Your task to perform on an android device: Go to sound settings Image 0: 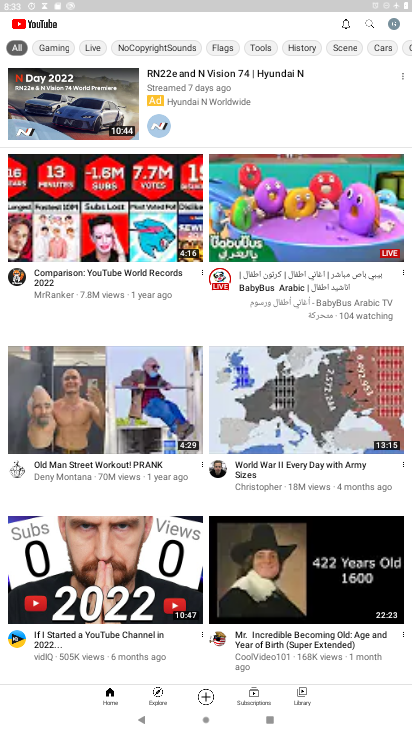
Step 0: press home button
Your task to perform on an android device: Go to sound settings Image 1: 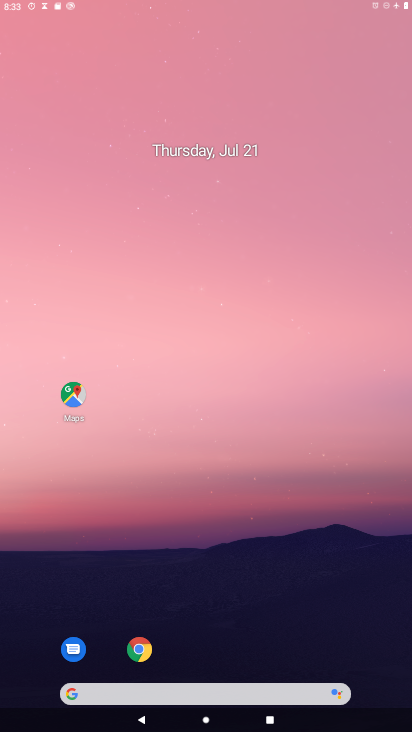
Step 1: drag from (389, 685) to (188, 52)
Your task to perform on an android device: Go to sound settings Image 2: 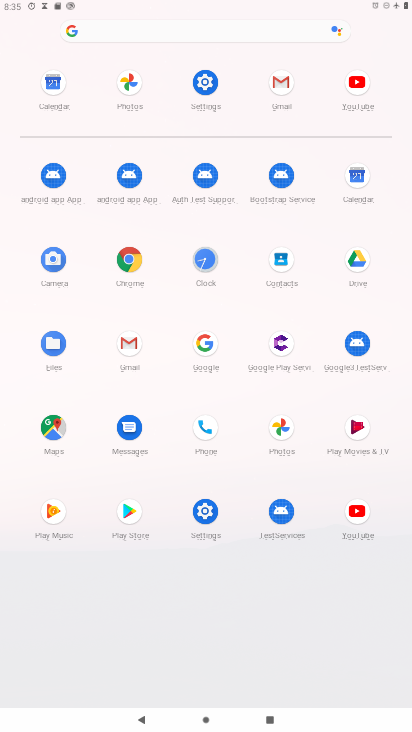
Step 2: click (208, 516)
Your task to perform on an android device: Go to sound settings Image 3: 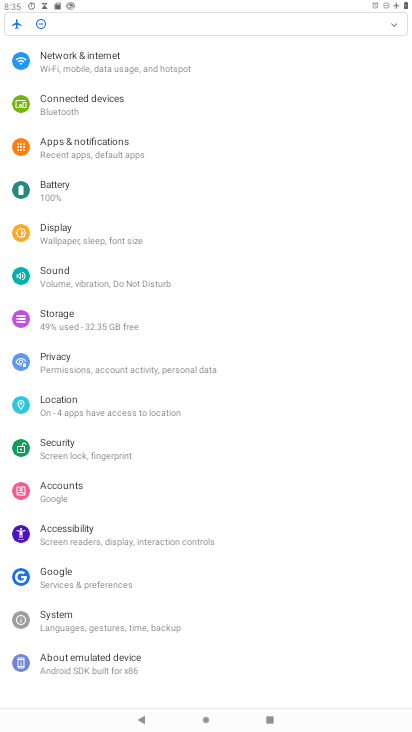
Step 3: click (63, 275)
Your task to perform on an android device: Go to sound settings Image 4: 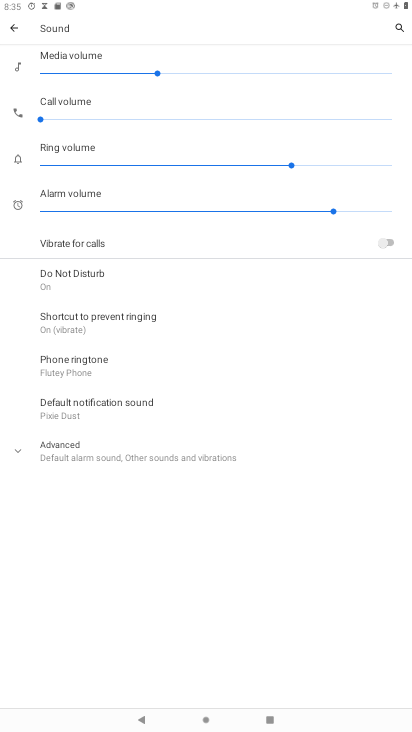
Step 4: task complete